Your task to perform on an android device: set an alarm Image 0: 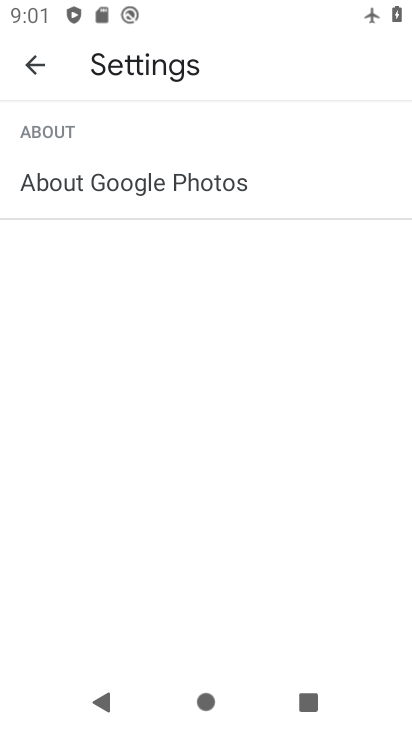
Step 0: press home button
Your task to perform on an android device: set an alarm Image 1: 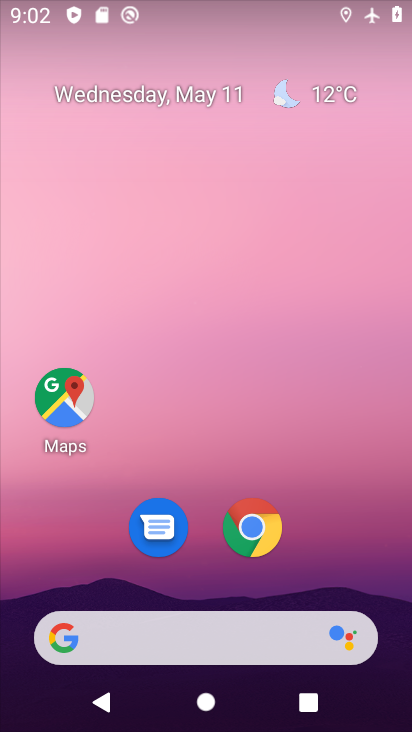
Step 1: drag from (357, 530) to (376, 194)
Your task to perform on an android device: set an alarm Image 2: 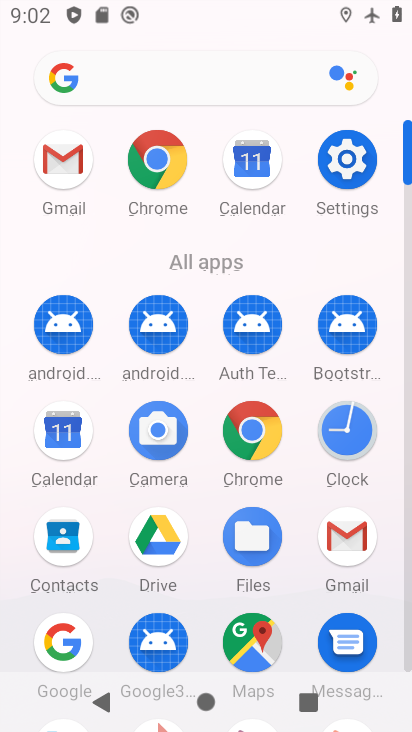
Step 2: click (356, 431)
Your task to perform on an android device: set an alarm Image 3: 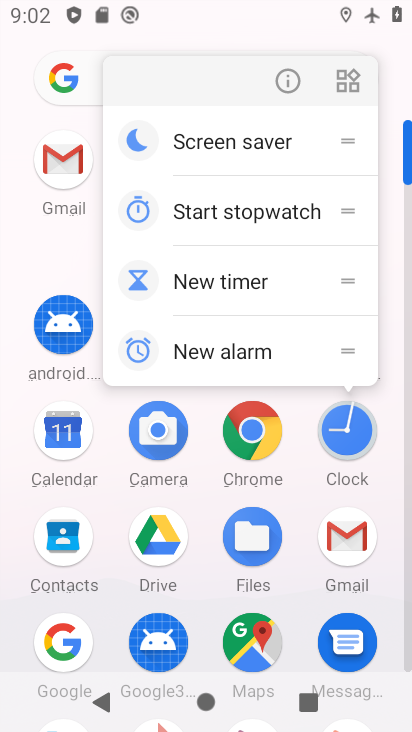
Step 3: click (355, 432)
Your task to perform on an android device: set an alarm Image 4: 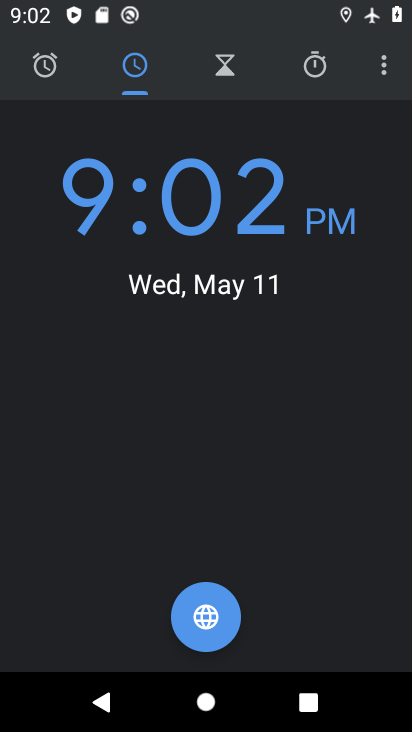
Step 4: click (44, 70)
Your task to perform on an android device: set an alarm Image 5: 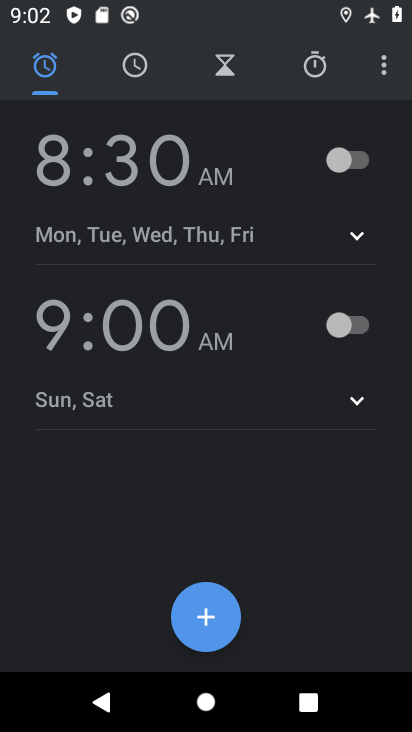
Step 5: click (173, 629)
Your task to perform on an android device: set an alarm Image 6: 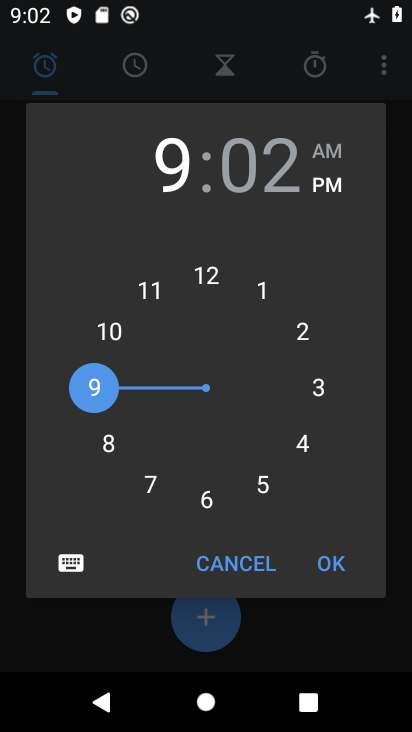
Step 6: click (317, 571)
Your task to perform on an android device: set an alarm Image 7: 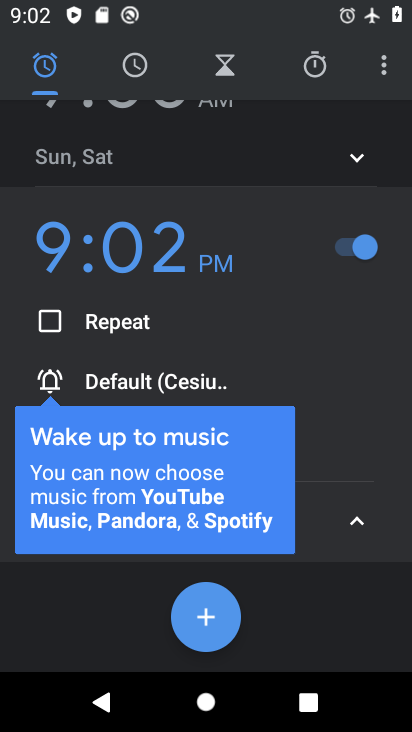
Step 7: task complete